Your task to perform on an android device: Open Amazon Image 0: 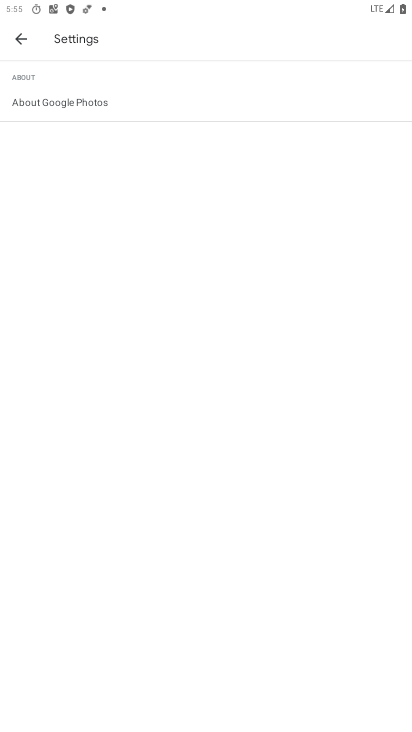
Step 0: press home button
Your task to perform on an android device: Open Amazon Image 1: 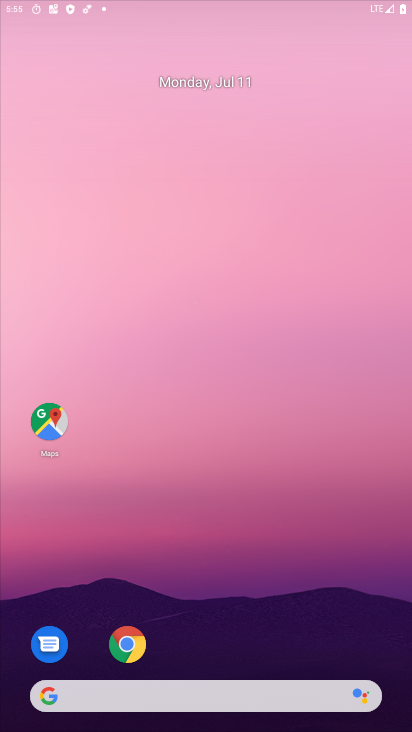
Step 1: drag from (195, 707) to (291, 9)
Your task to perform on an android device: Open Amazon Image 2: 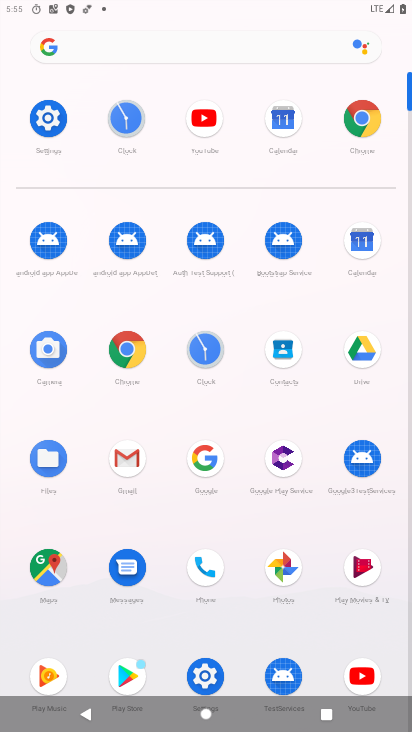
Step 2: click (128, 342)
Your task to perform on an android device: Open Amazon Image 3: 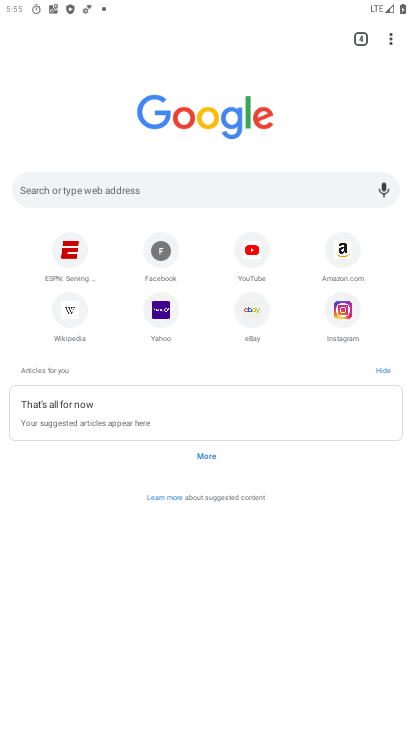
Step 3: click (343, 257)
Your task to perform on an android device: Open Amazon Image 4: 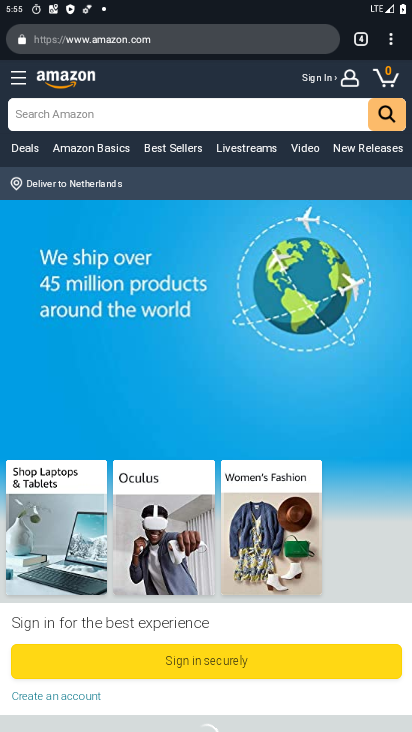
Step 4: task complete